Your task to perform on an android device: Open the Play Movies app and select the watchlist tab. Image 0: 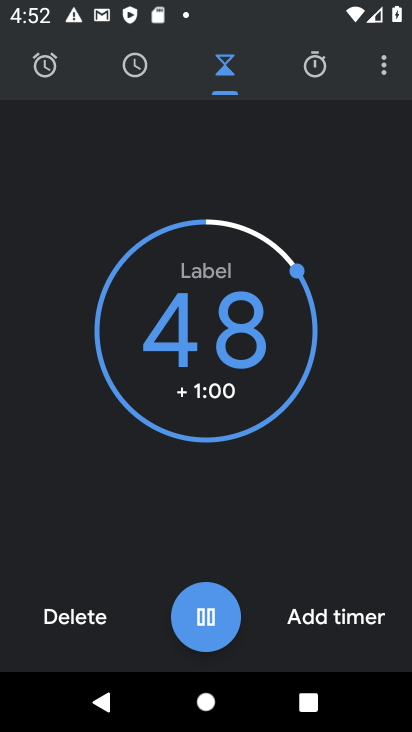
Step 0: press home button
Your task to perform on an android device: Open the Play Movies app and select the watchlist tab. Image 1: 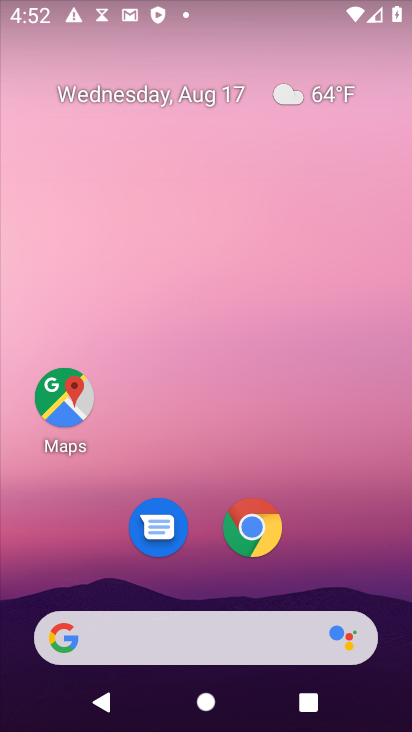
Step 1: drag from (205, 639) to (244, 237)
Your task to perform on an android device: Open the Play Movies app and select the watchlist tab. Image 2: 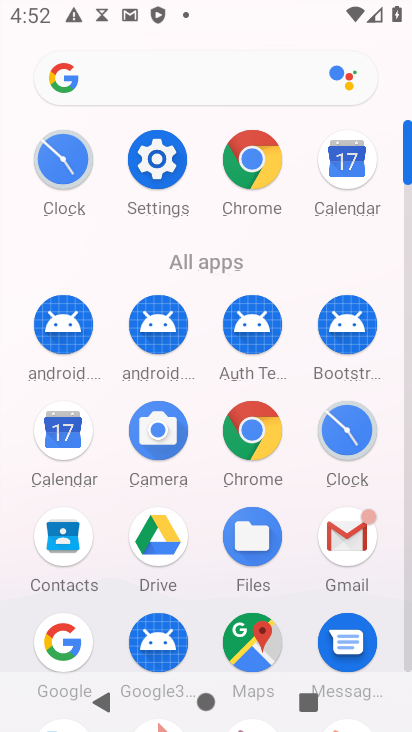
Step 2: drag from (266, 595) to (266, 304)
Your task to perform on an android device: Open the Play Movies app and select the watchlist tab. Image 3: 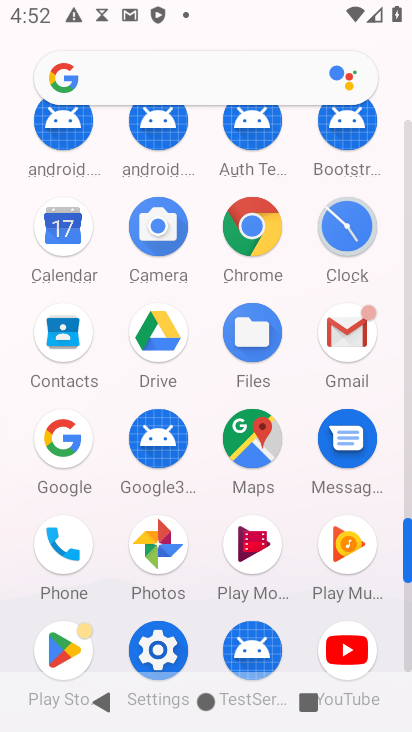
Step 3: click (234, 556)
Your task to perform on an android device: Open the Play Movies app and select the watchlist tab. Image 4: 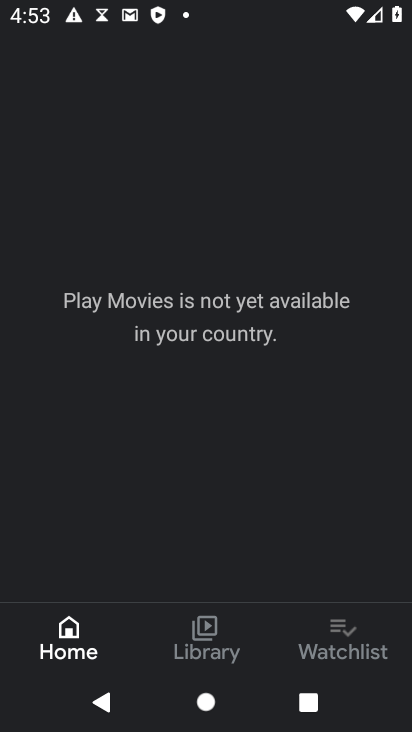
Step 4: click (309, 637)
Your task to perform on an android device: Open the Play Movies app and select the watchlist tab. Image 5: 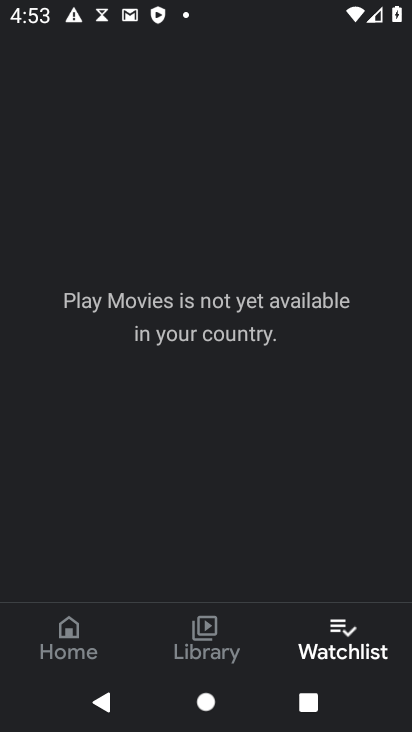
Step 5: task complete